Your task to perform on an android device: Open Google Chrome Image 0: 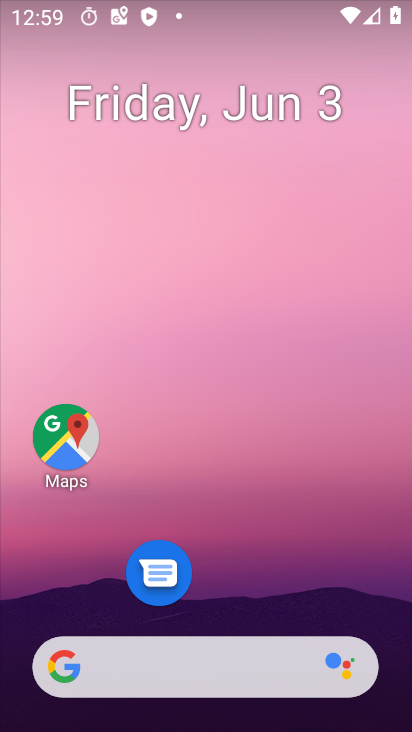
Step 0: drag from (266, 723) to (272, 295)
Your task to perform on an android device: Open Google Chrome Image 1: 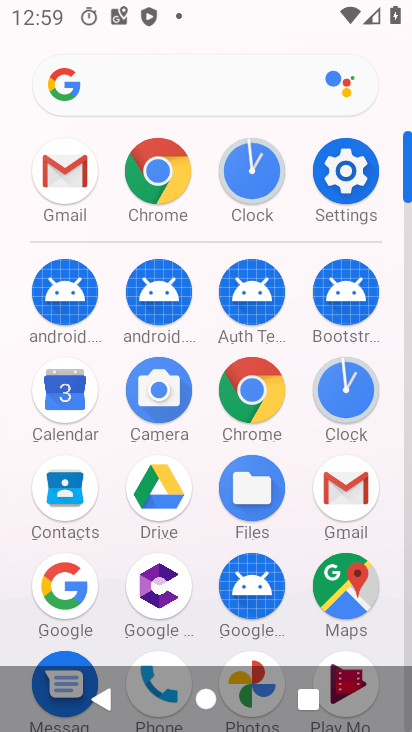
Step 1: click (154, 180)
Your task to perform on an android device: Open Google Chrome Image 2: 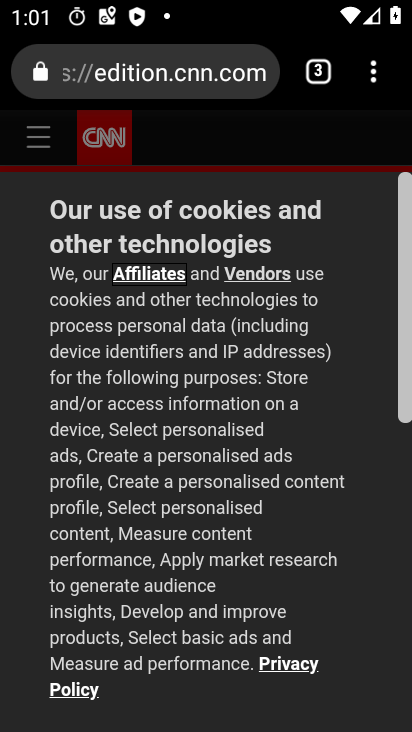
Step 2: task complete